Your task to perform on an android device: add a label to a message in the gmail app Image 0: 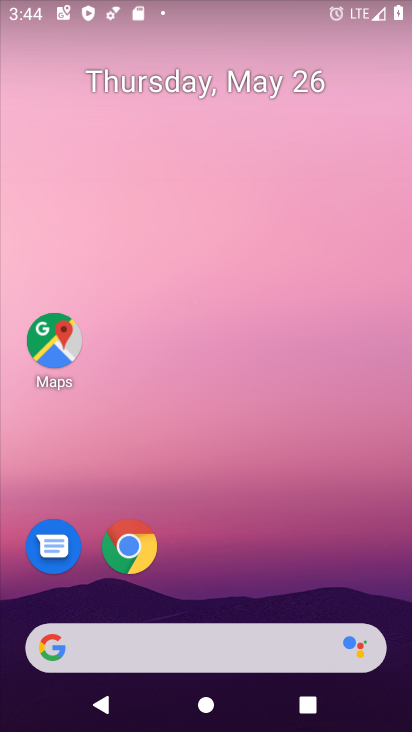
Step 0: drag from (239, 591) to (283, 34)
Your task to perform on an android device: add a label to a message in the gmail app Image 1: 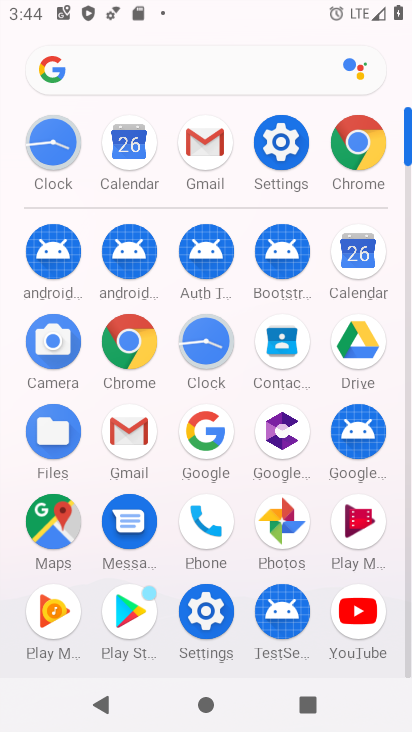
Step 1: click (204, 147)
Your task to perform on an android device: add a label to a message in the gmail app Image 2: 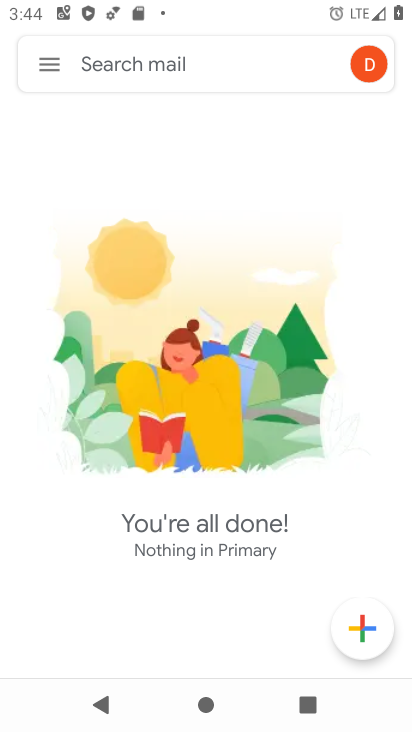
Step 2: click (44, 56)
Your task to perform on an android device: add a label to a message in the gmail app Image 3: 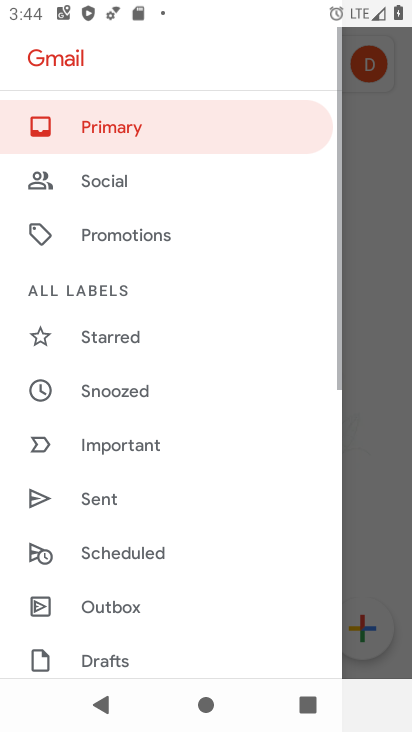
Step 3: drag from (200, 565) to (227, 178)
Your task to perform on an android device: add a label to a message in the gmail app Image 4: 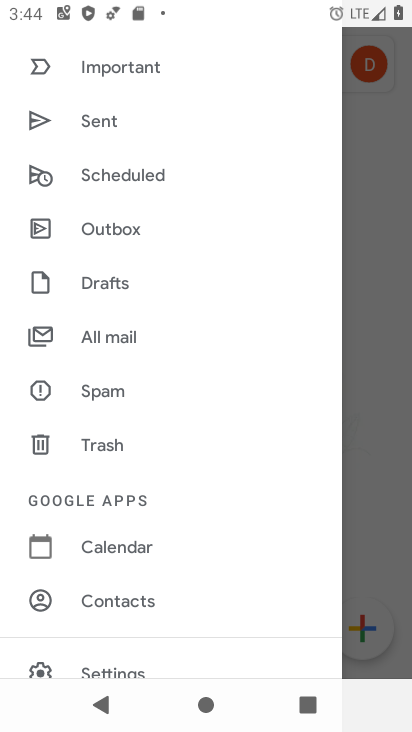
Step 4: click (113, 341)
Your task to perform on an android device: add a label to a message in the gmail app Image 5: 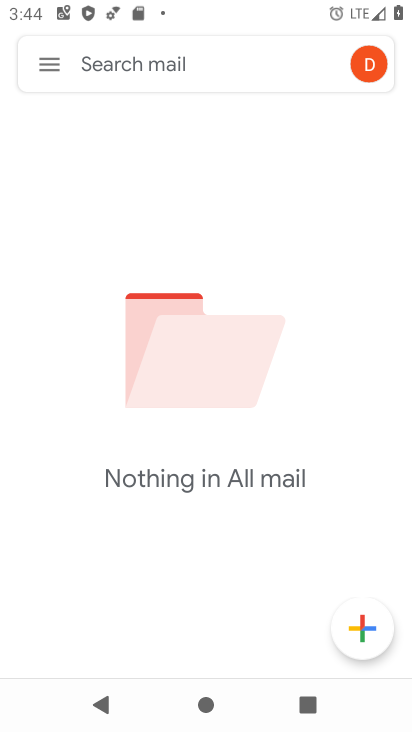
Step 5: task complete